Your task to perform on an android device: Check the weather Image 0: 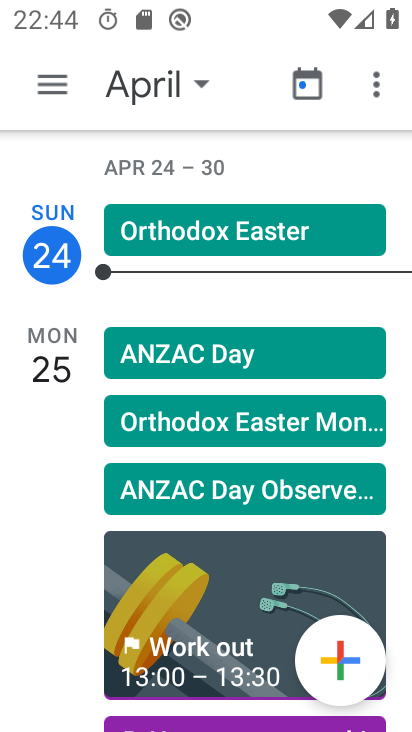
Step 0: press home button
Your task to perform on an android device: Check the weather Image 1: 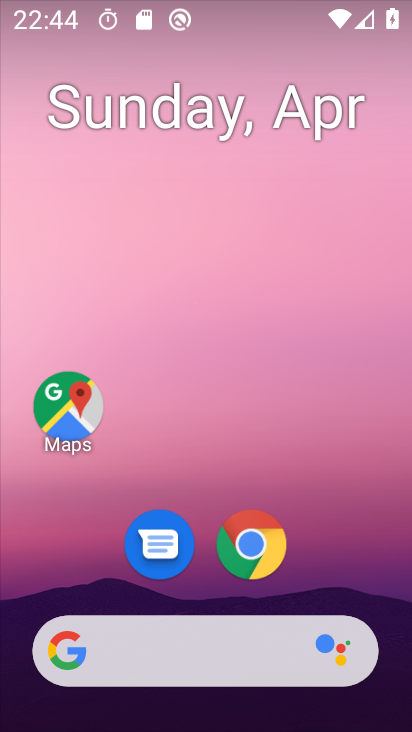
Step 1: drag from (323, 416) to (348, 217)
Your task to perform on an android device: Check the weather Image 2: 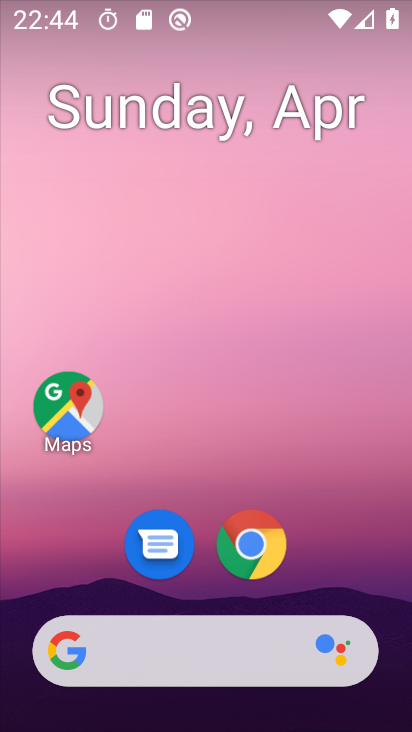
Step 2: drag from (325, 637) to (344, 226)
Your task to perform on an android device: Check the weather Image 3: 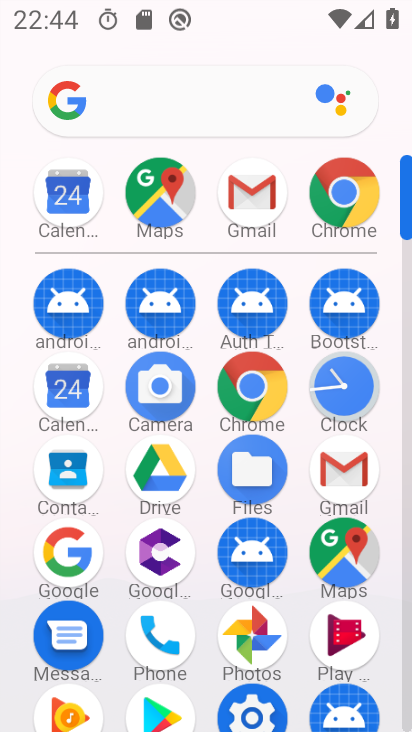
Step 3: click (251, 381)
Your task to perform on an android device: Check the weather Image 4: 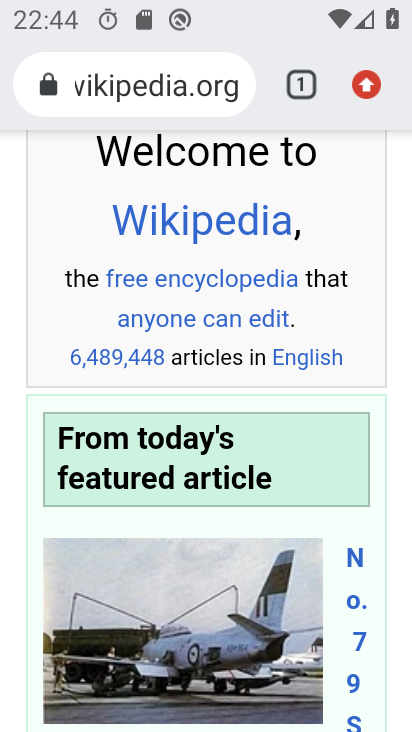
Step 4: click (371, 77)
Your task to perform on an android device: Check the weather Image 5: 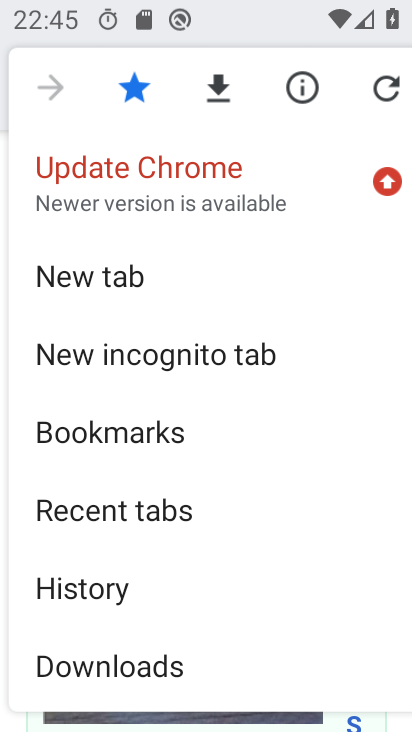
Step 5: click (210, 279)
Your task to perform on an android device: Check the weather Image 6: 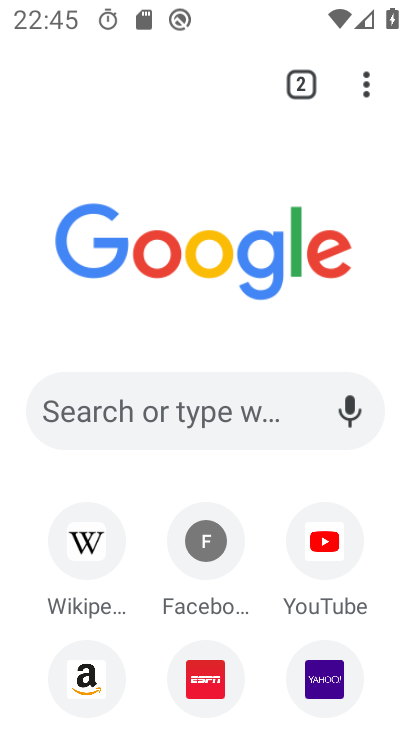
Step 6: click (152, 417)
Your task to perform on an android device: Check the weather Image 7: 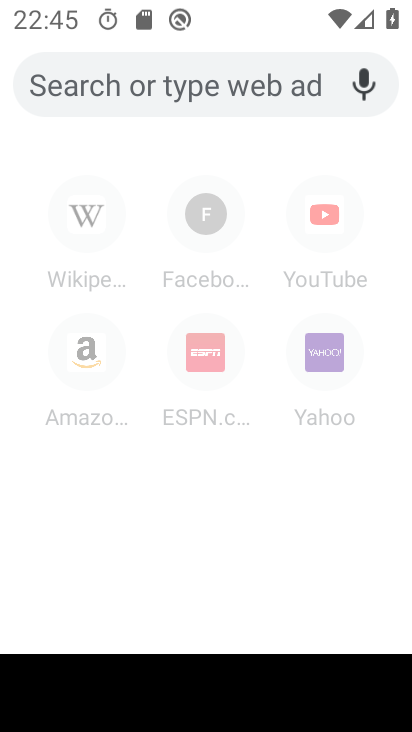
Step 7: type "sushi restaurants"
Your task to perform on an android device: Check the weather Image 8: 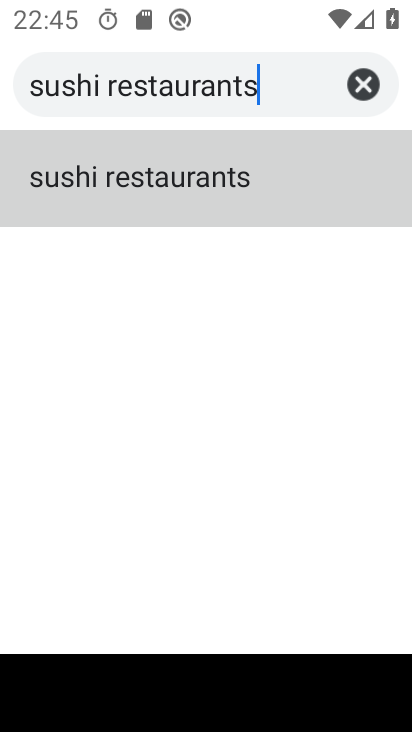
Step 8: click (219, 193)
Your task to perform on an android device: Check the weather Image 9: 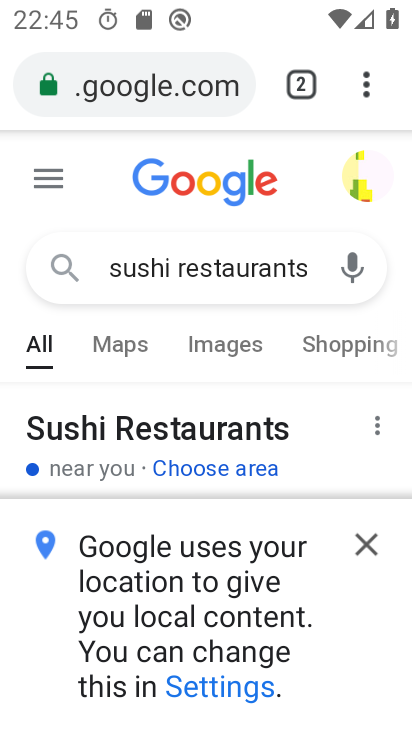
Step 9: click (370, 536)
Your task to perform on an android device: Check the weather Image 10: 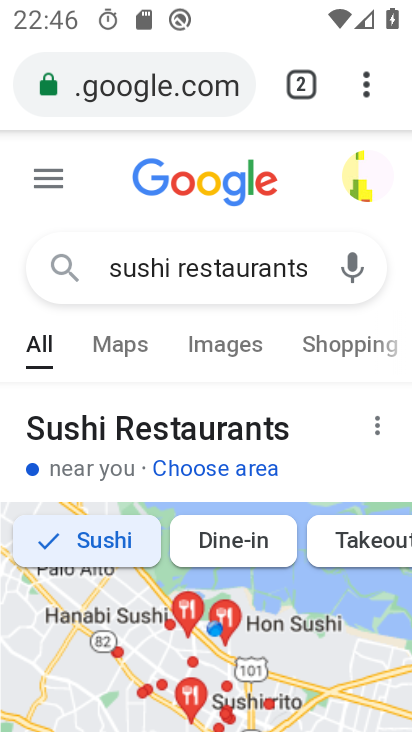
Step 10: task complete